Your task to perform on an android device: Open accessibility settings Image 0: 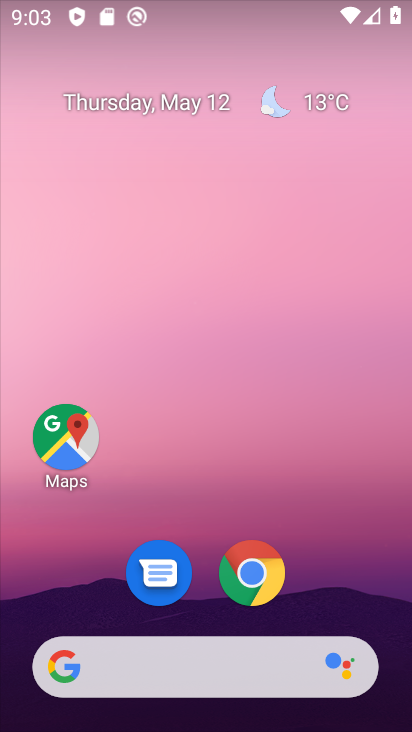
Step 0: click (263, 574)
Your task to perform on an android device: Open accessibility settings Image 1: 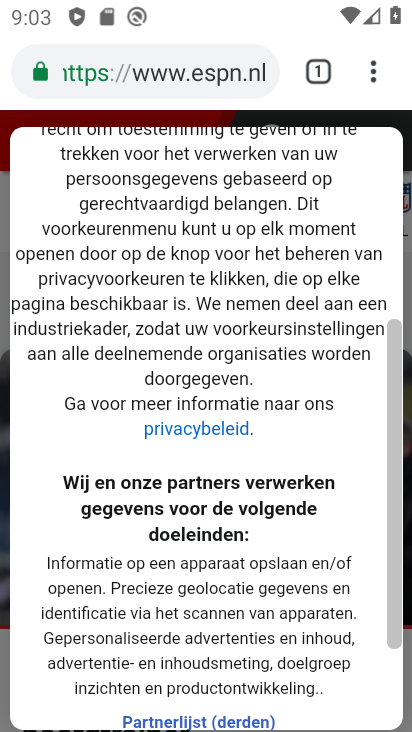
Step 1: press home button
Your task to perform on an android device: Open accessibility settings Image 2: 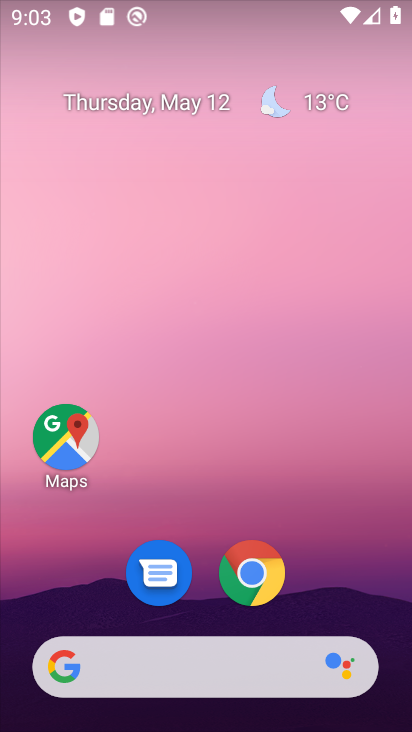
Step 2: click (332, 177)
Your task to perform on an android device: Open accessibility settings Image 3: 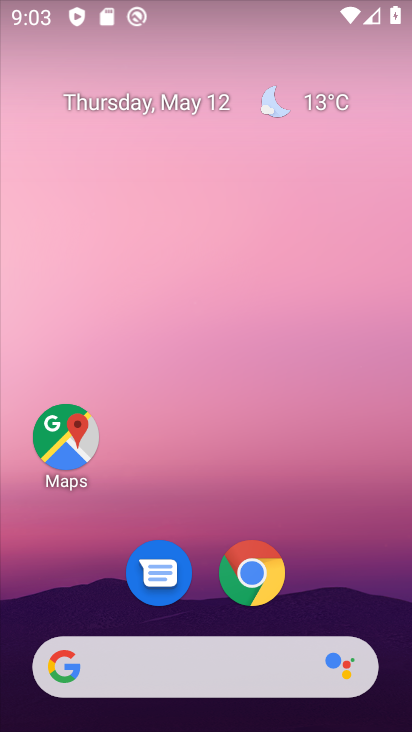
Step 3: drag from (397, 705) to (332, 254)
Your task to perform on an android device: Open accessibility settings Image 4: 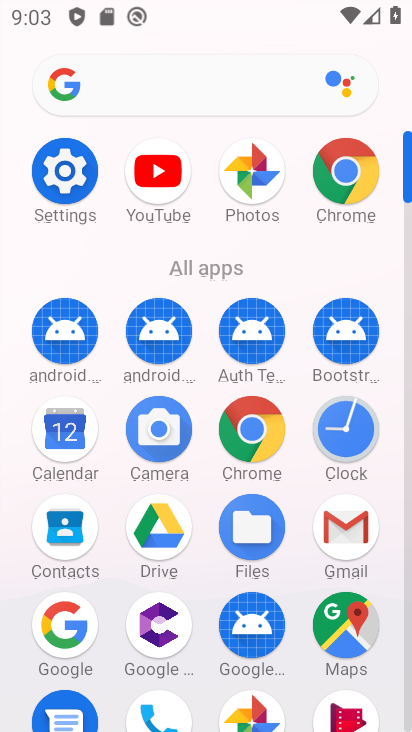
Step 4: click (68, 189)
Your task to perform on an android device: Open accessibility settings Image 5: 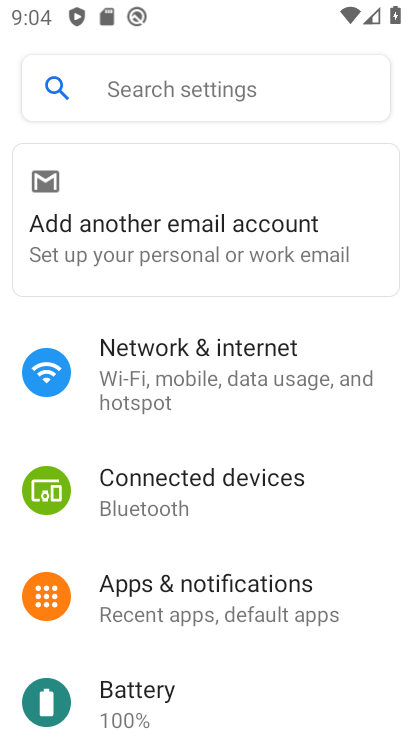
Step 5: drag from (347, 597) to (354, 425)
Your task to perform on an android device: Open accessibility settings Image 6: 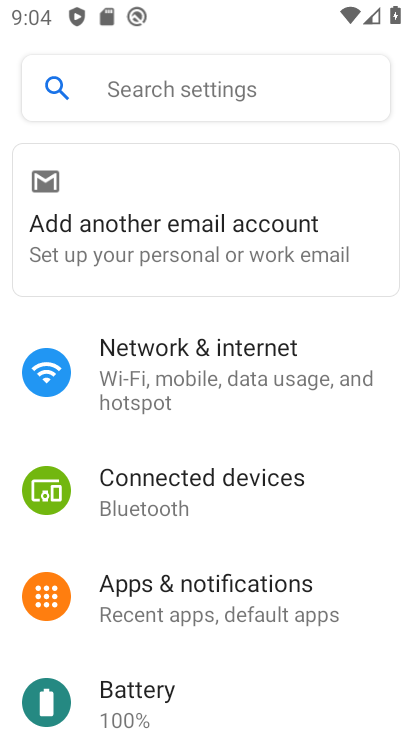
Step 6: drag from (352, 700) to (327, 193)
Your task to perform on an android device: Open accessibility settings Image 7: 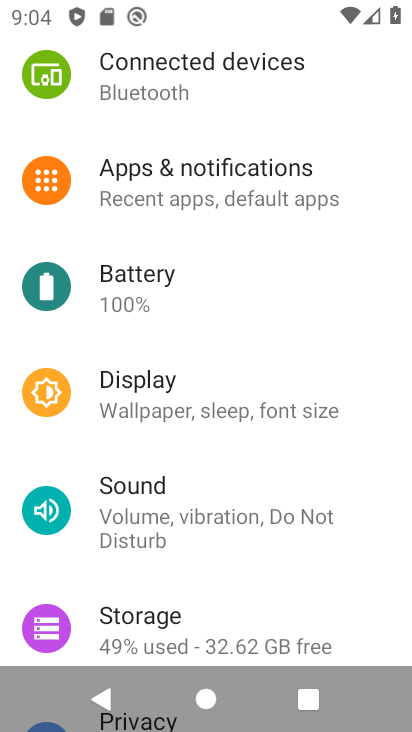
Step 7: drag from (347, 613) to (339, 359)
Your task to perform on an android device: Open accessibility settings Image 8: 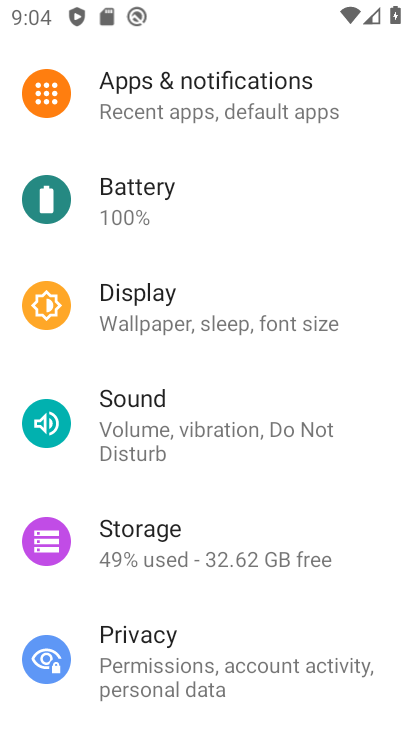
Step 8: drag from (373, 613) to (388, 273)
Your task to perform on an android device: Open accessibility settings Image 9: 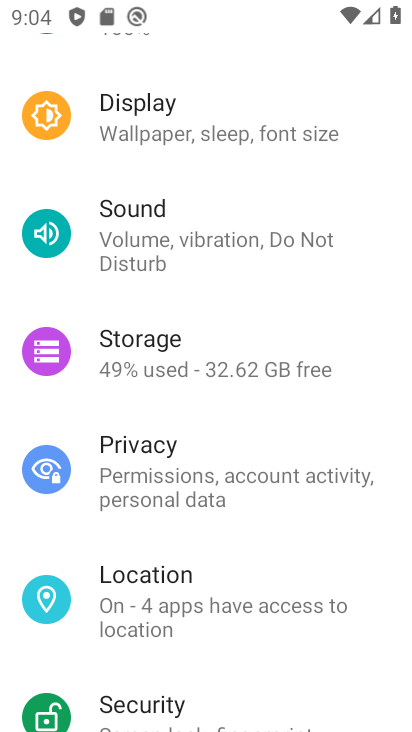
Step 9: drag from (359, 651) to (389, 317)
Your task to perform on an android device: Open accessibility settings Image 10: 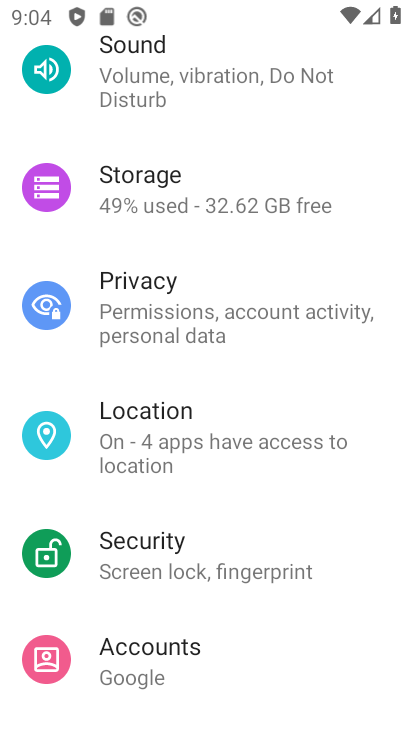
Step 10: drag from (363, 606) to (381, 304)
Your task to perform on an android device: Open accessibility settings Image 11: 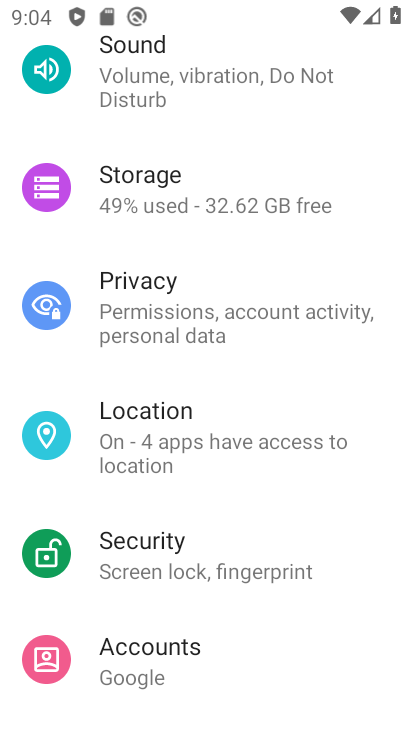
Step 11: drag from (317, 693) to (331, 376)
Your task to perform on an android device: Open accessibility settings Image 12: 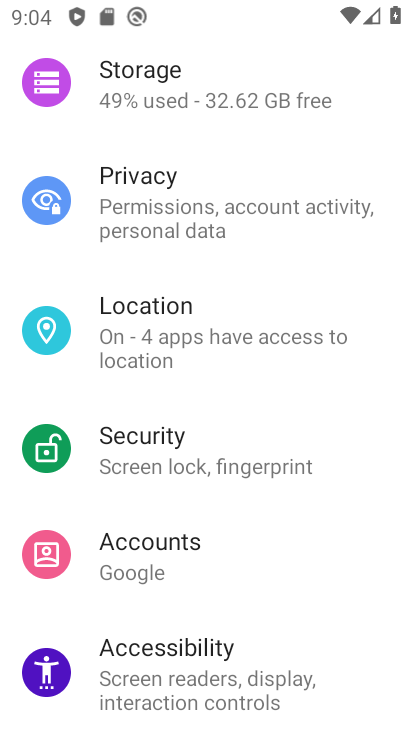
Step 12: click (150, 640)
Your task to perform on an android device: Open accessibility settings Image 13: 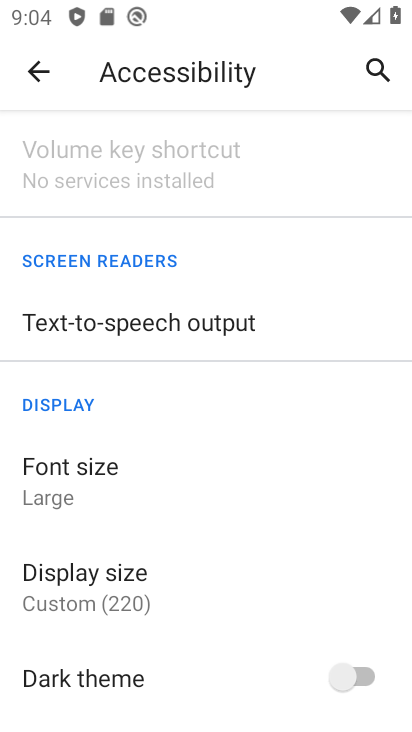
Step 13: task complete